Your task to perform on an android device: Open settings on Google Maps Image 0: 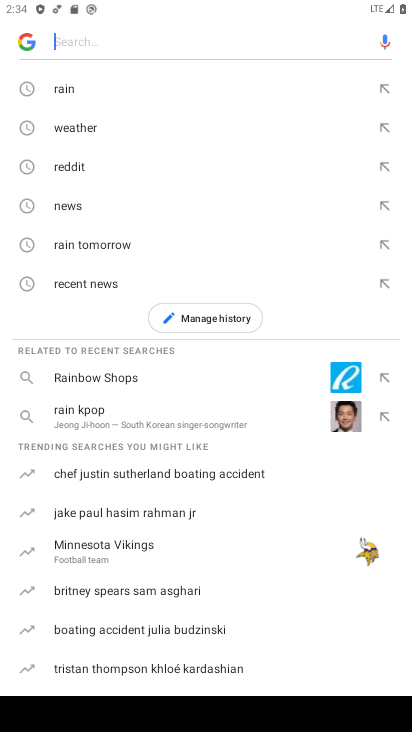
Step 0: press back button
Your task to perform on an android device: Open settings on Google Maps Image 1: 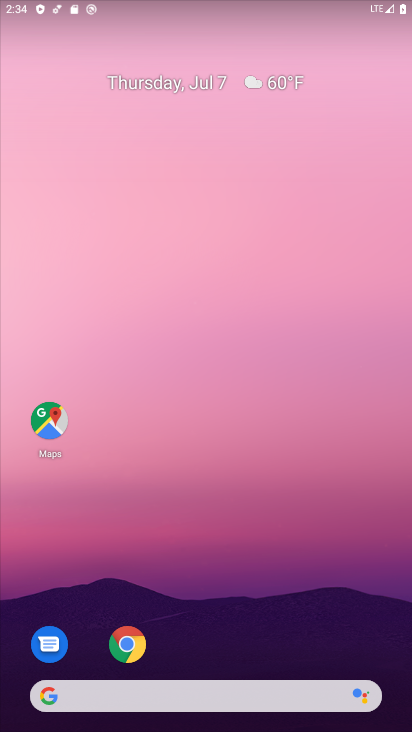
Step 1: click (59, 440)
Your task to perform on an android device: Open settings on Google Maps Image 2: 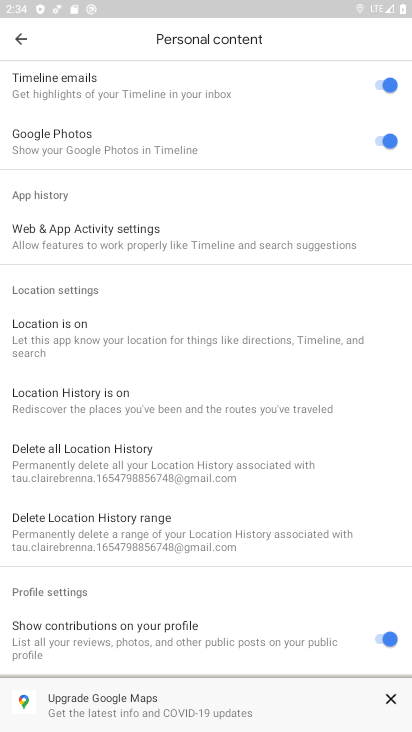
Step 2: click (19, 39)
Your task to perform on an android device: Open settings on Google Maps Image 3: 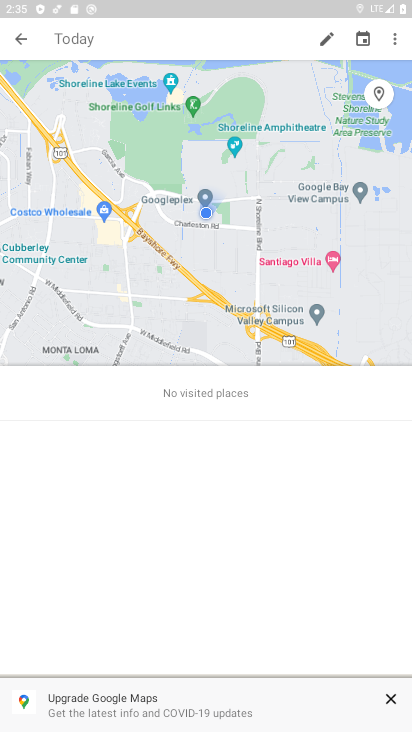
Step 3: click (19, 39)
Your task to perform on an android device: Open settings on Google Maps Image 4: 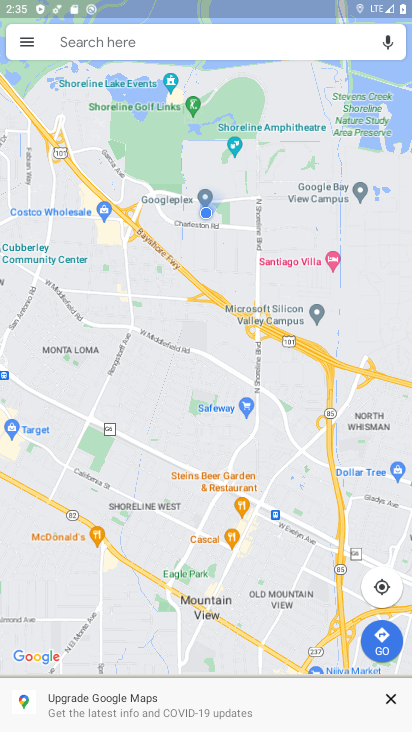
Step 4: click (27, 40)
Your task to perform on an android device: Open settings on Google Maps Image 5: 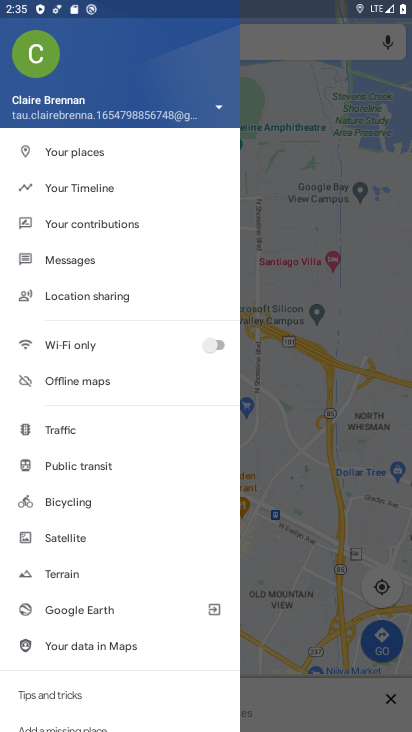
Step 5: drag from (88, 668) to (109, 175)
Your task to perform on an android device: Open settings on Google Maps Image 6: 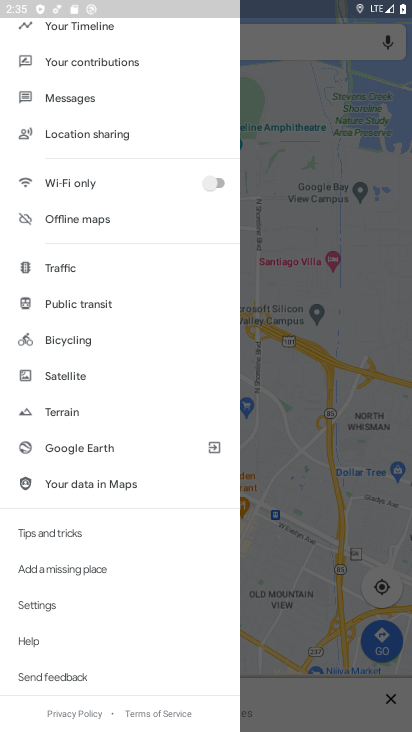
Step 6: click (83, 610)
Your task to perform on an android device: Open settings on Google Maps Image 7: 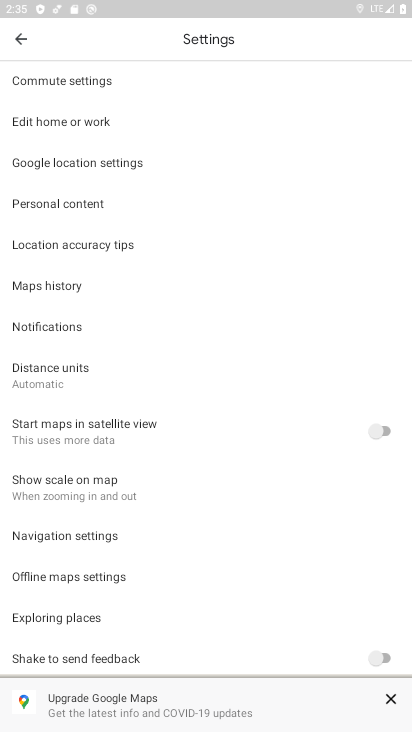
Step 7: task complete